Your task to perform on an android device: turn on priority inbox in the gmail app Image 0: 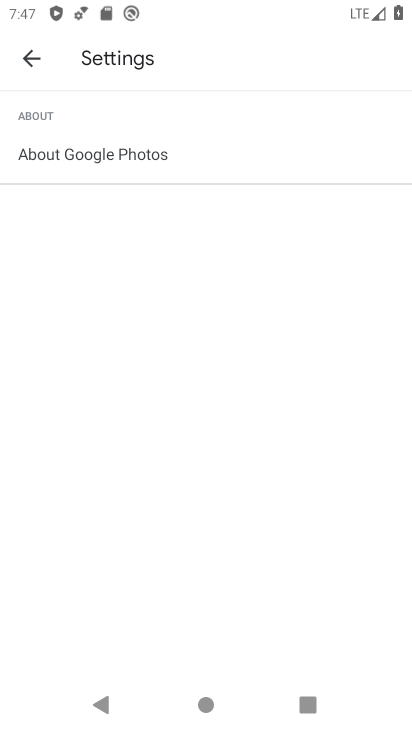
Step 0: press back button
Your task to perform on an android device: turn on priority inbox in the gmail app Image 1: 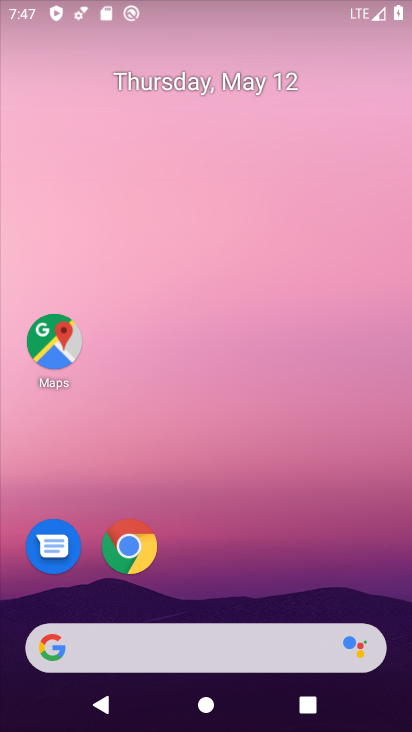
Step 1: drag from (234, 510) to (308, 15)
Your task to perform on an android device: turn on priority inbox in the gmail app Image 2: 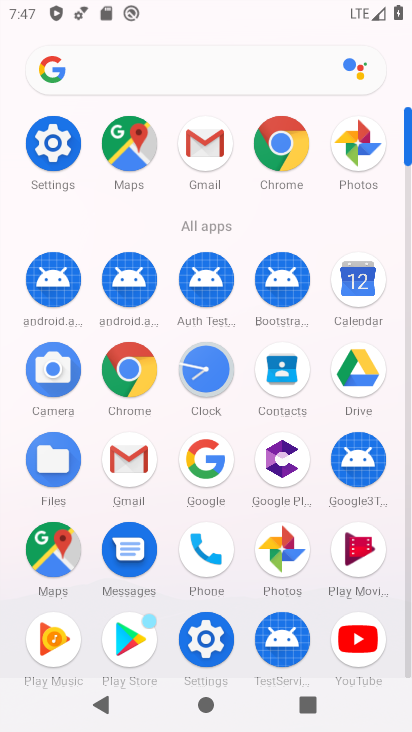
Step 2: click (201, 151)
Your task to perform on an android device: turn on priority inbox in the gmail app Image 3: 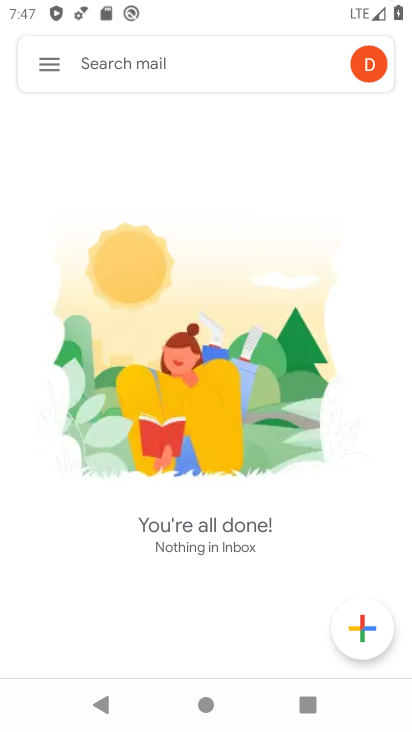
Step 3: click (47, 65)
Your task to perform on an android device: turn on priority inbox in the gmail app Image 4: 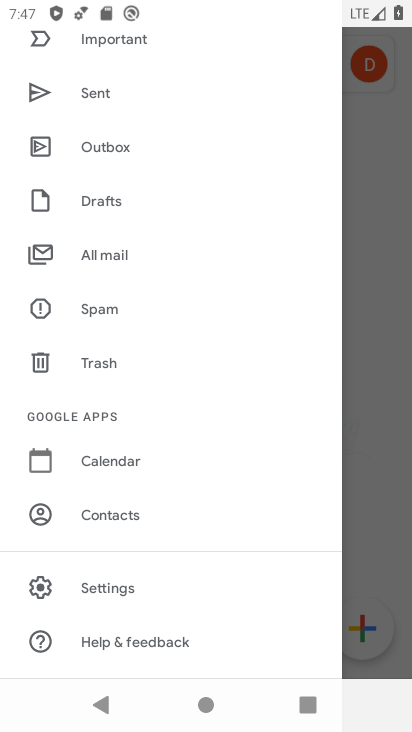
Step 4: click (107, 581)
Your task to perform on an android device: turn on priority inbox in the gmail app Image 5: 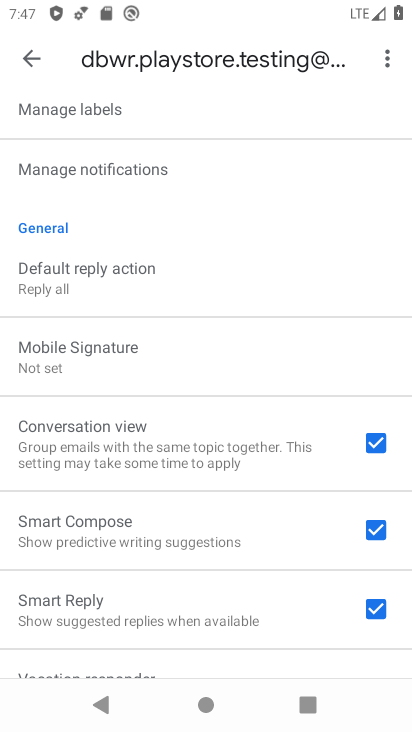
Step 5: drag from (150, 555) to (258, 53)
Your task to perform on an android device: turn on priority inbox in the gmail app Image 6: 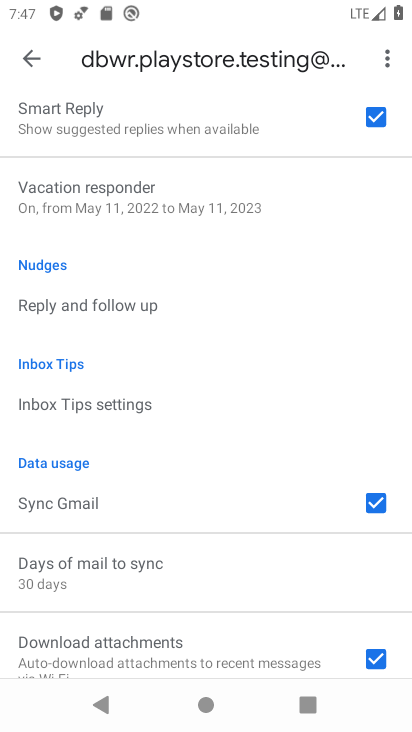
Step 6: drag from (173, 150) to (173, 715)
Your task to perform on an android device: turn on priority inbox in the gmail app Image 7: 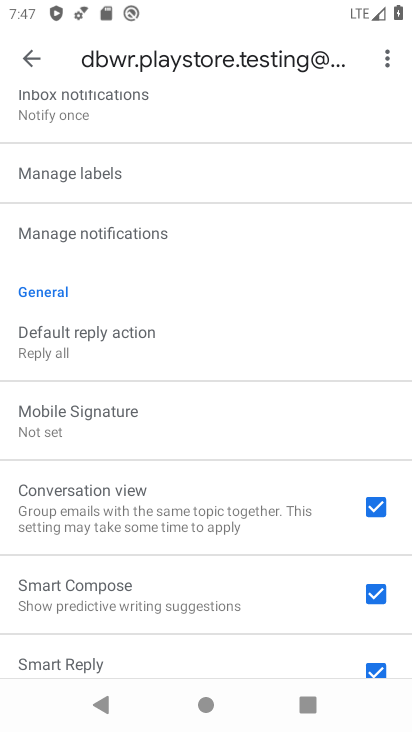
Step 7: drag from (152, 207) to (138, 602)
Your task to perform on an android device: turn on priority inbox in the gmail app Image 8: 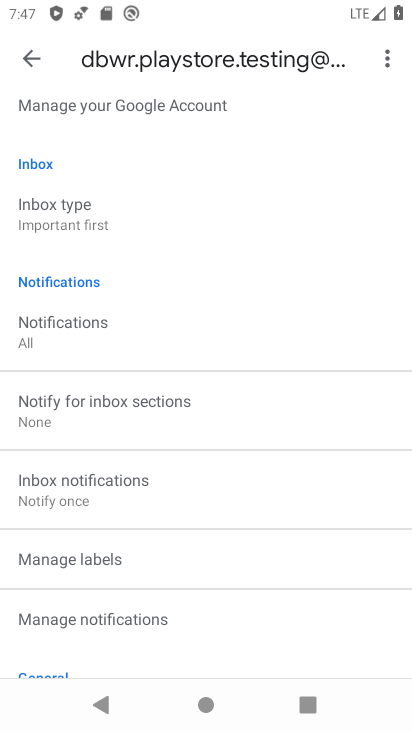
Step 8: click (80, 209)
Your task to perform on an android device: turn on priority inbox in the gmail app Image 9: 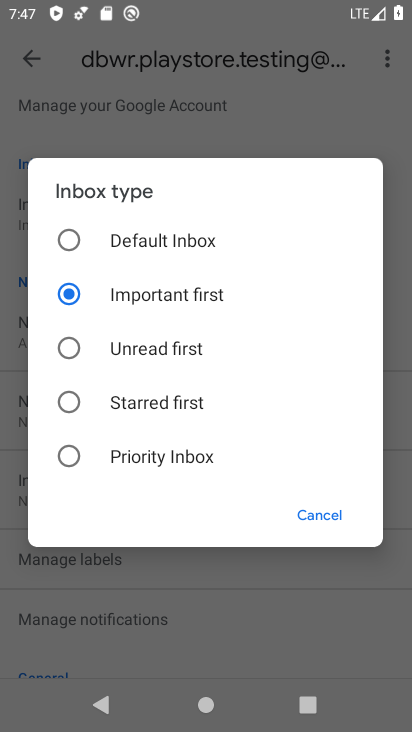
Step 9: click (71, 457)
Your task to perform on an android device: turn on priority inbox in the gmail app Image 10: 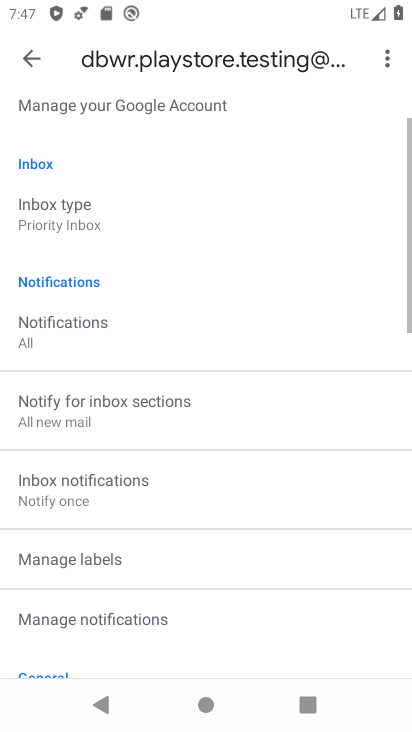
Step 10: task complete